Your task to perform on an android device: Open the phone app and click the voicemail tab. Image 0: 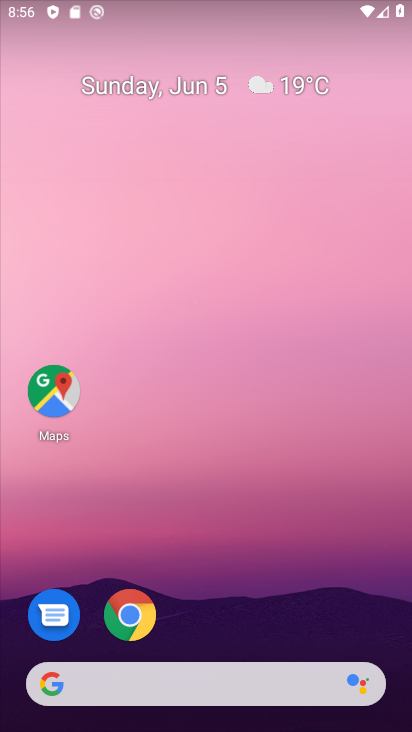
Step 0: drag from (193, 621) to (263, 179)
Your task to perform on an android device: Open the phone app and click the voicemail tab. Image 1: 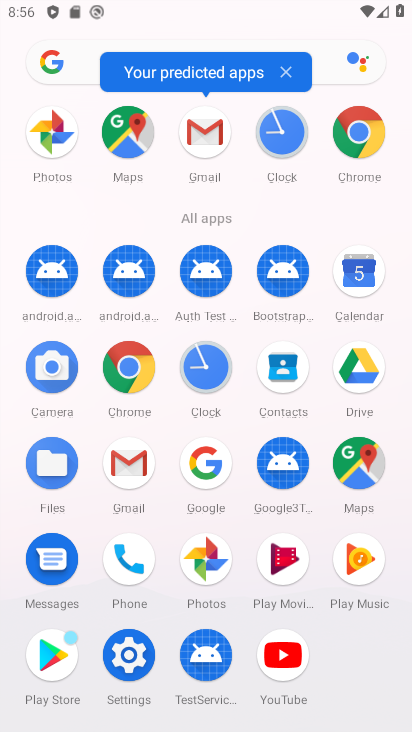
Step 1: click (125, 573)
Your task to perform on an android device: Open the phone app and click the voicemail tab. Image 2: 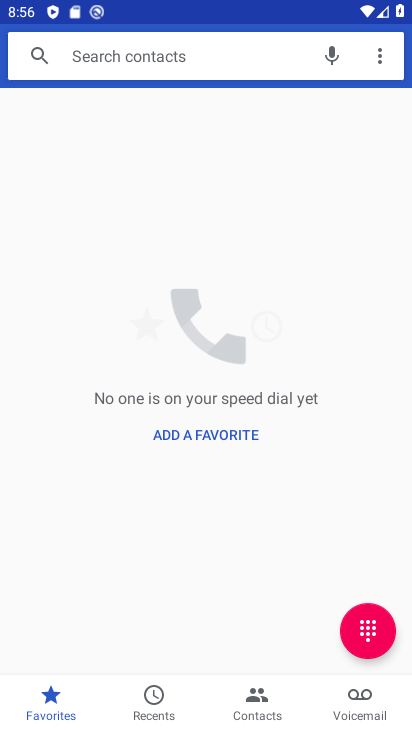
Step 2: click (355, 707)
Your task to perform on an android device: Open the phone app and click the voicemail tab. Image 3: 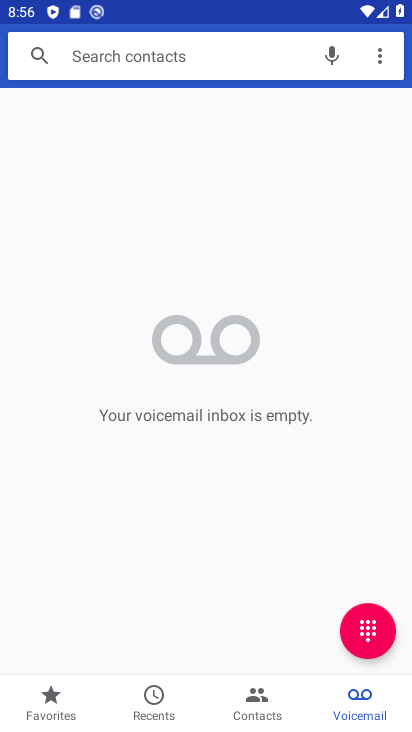
Step 3: task complete